Your task to perform on an android device: choose inbox layout in the gmail app Image 0: 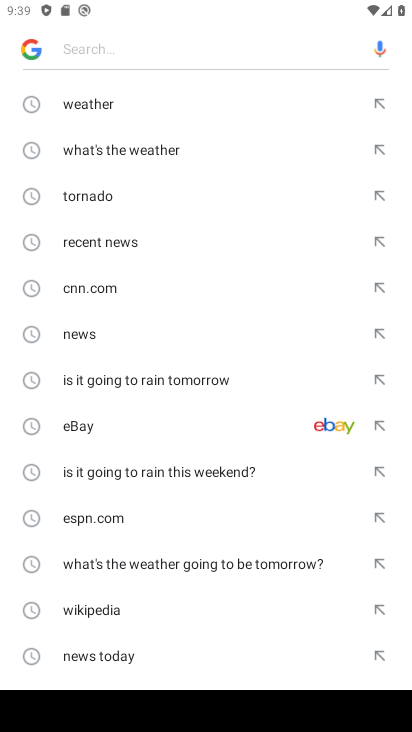
Step 0: press home button
Your task to perform on an android device: choose inbox layout in the gmail app Image 1: 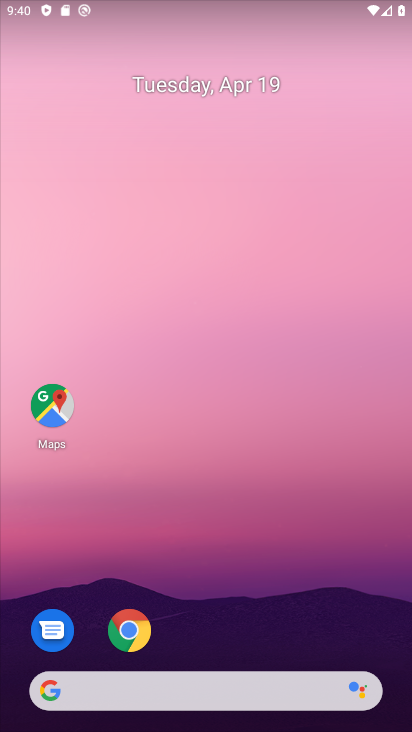
Step 1: drag from (213, 647) to (212, 201)
Your task to perform on an android device: choose inbox layout in the gmail app Image 2: 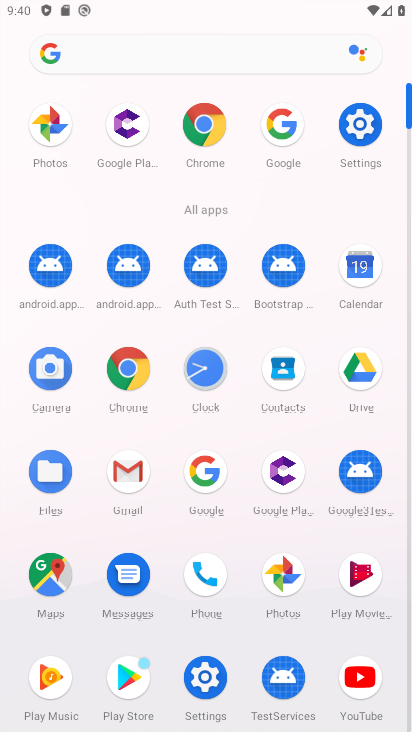
Step 2: click (129, 474)
Your task to perform on an android device: choose inbox layout in the gmail app Image 3: 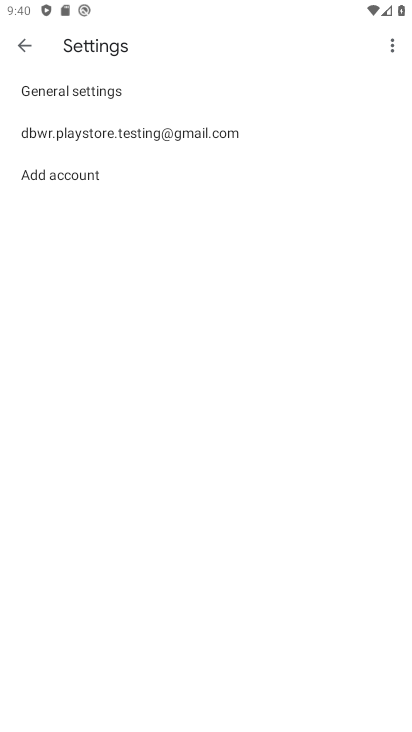
Step 3: click (26, 47)
Your task to perform on an android device: choose inbox layout in the gmail app Image 4: 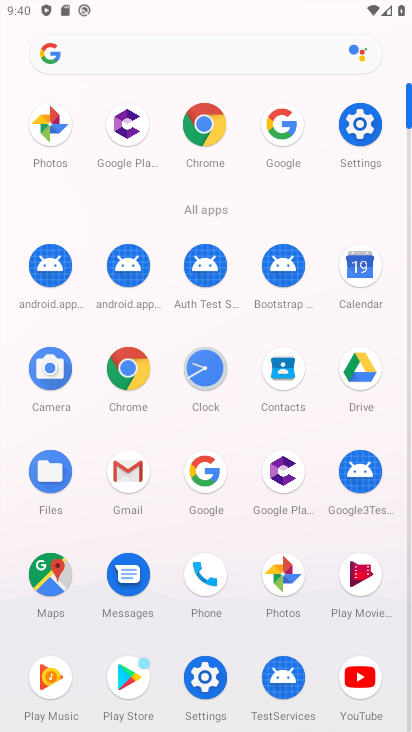
Step 4: click (137, 471)
Your task to perform on an android device: choose inbox layout in the gmail app Image 5: 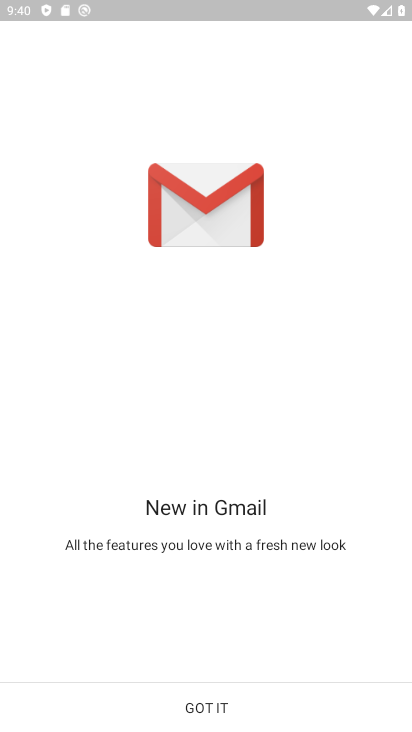
Step 5: click (232, 700)
Your task to perform on an android device: choose inbox layout in the gmail app Image 6: 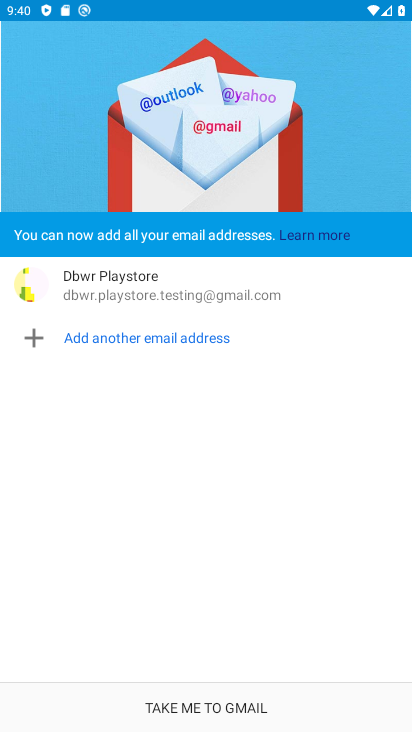
Step 6: click (236, 700)
Your task to perform on an android device: choose inbox layout in the gmail app Image 7: 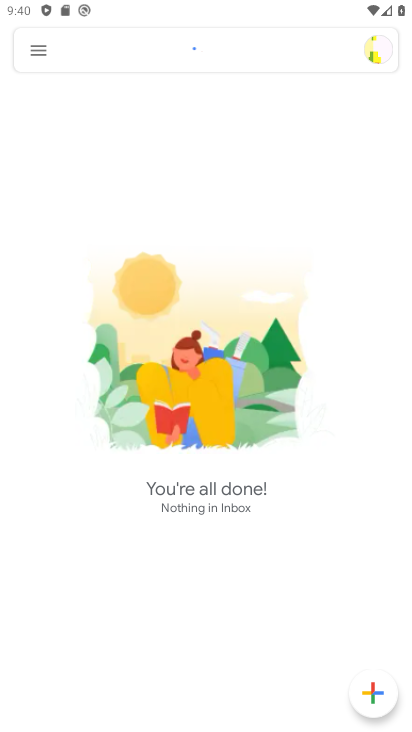
Step 7: click (46, 51)
Your task to perform on an android device: choose inbox layout in the gmail app Image 8: 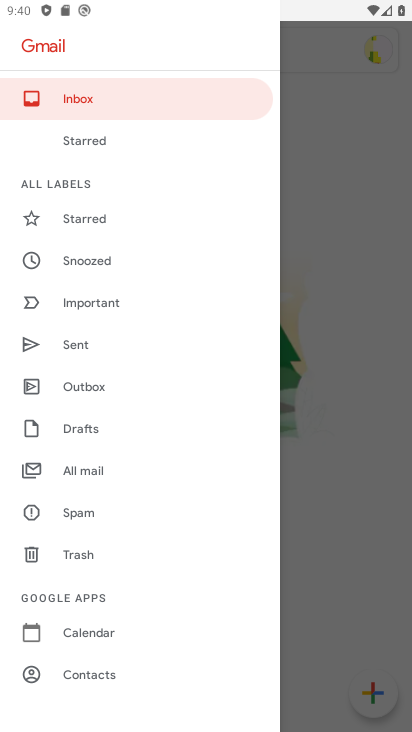
Step 8: drag from (137, 628) to (135, 290)
Your task to perform on an android device: choose inbox layout in the gmail app Image 9: 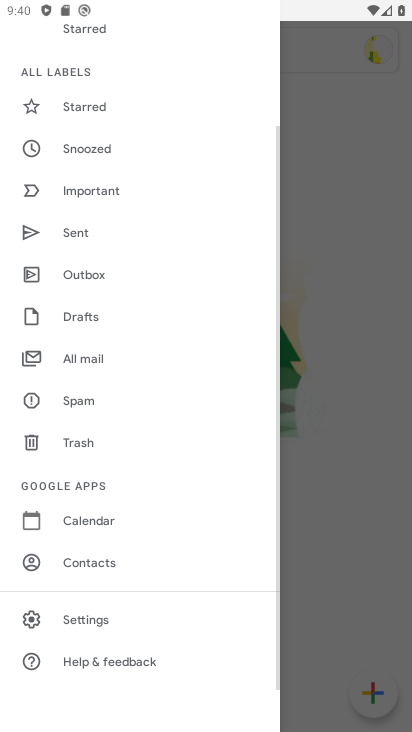
Step 9: click (81, 618)
Your task to perform on an android device: choose inbox layout in the gmail app Image 10: 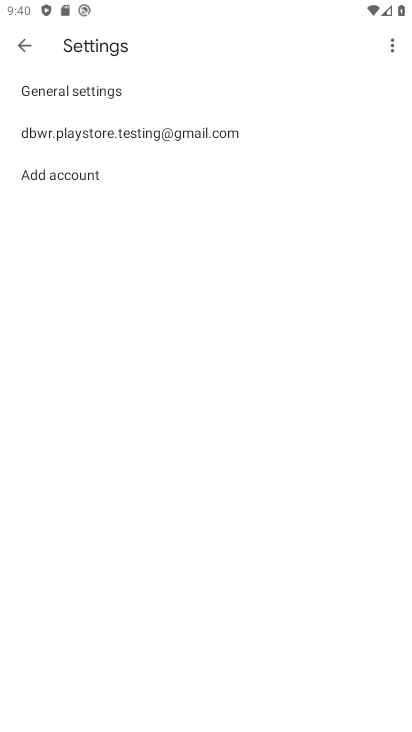
Step 10: click (163, 127)
Your task to perform on an android device: choose inbox layout in the gmail app Image 11: 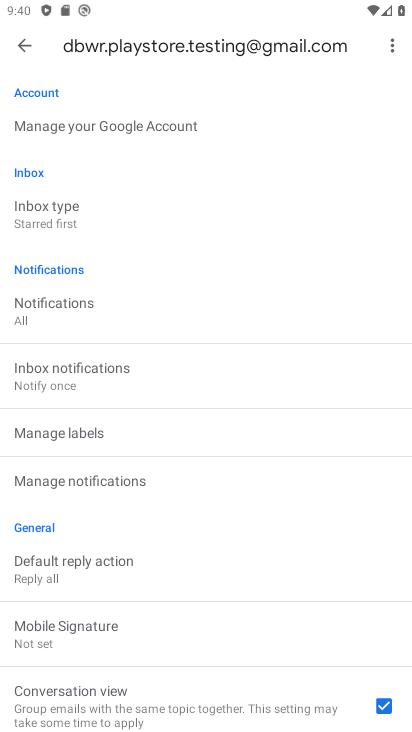
Step 11: click (77, 211)
Your task to perform on an android device: choose inbox layout in the gmail app Image 12: 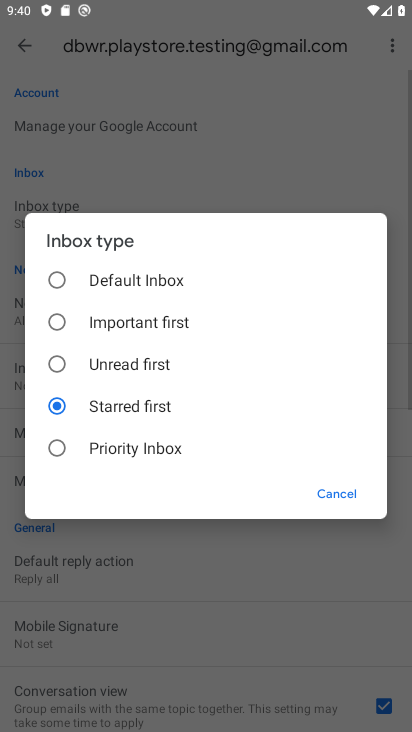
Step 12: click (122, 442)
Your task to perform on an android device: choose inbox layout in the gmail app Image 13: 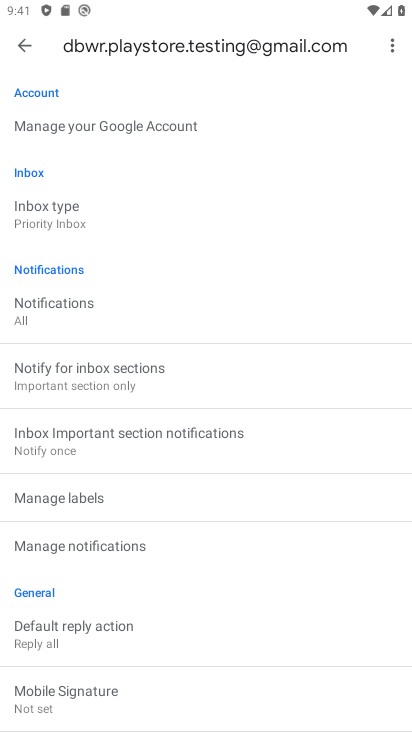
Step 13: task complete